Your task to perform on an android device: Go to calendar. Show me events next week Image 0: 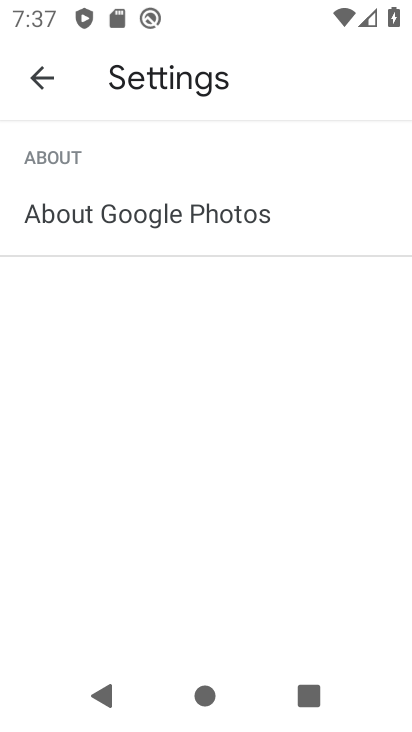
Step 0: press home button
Your task to perform on an android device: Go to calendar. Show me events next week Image 1: 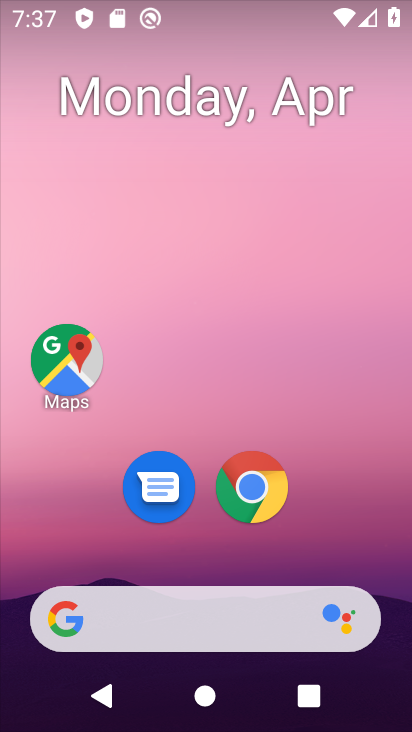
Step 1: drag from (349, 520) to (350, 99)
Your task to perform on an android device: Go to calendar. Show me events next week Image 2: 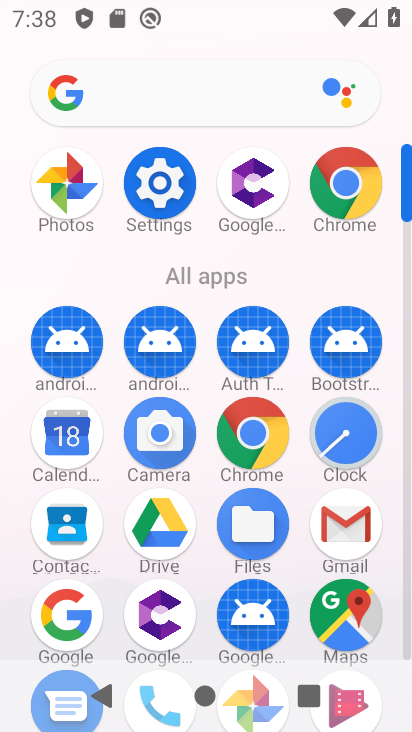
Step 2: drag from (391, 239) to (397, 91)
Your task to perform on an android device: Go to calendar. Show me events next week Image 3: 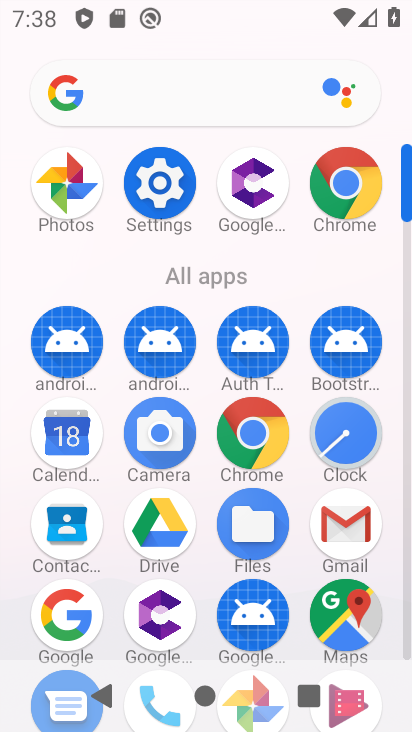
Step 3: drag from (392, 502) to (387, 228)
Your task to perform on an android device: Go to calendar. Show me events next week Image 4: 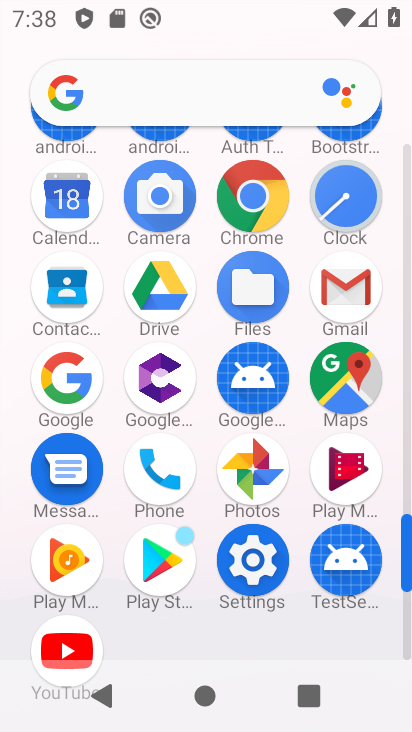
Step 4: click (65, 210)
Your task to perform on an android device: Go to calendar. Show me events next week Image 5: 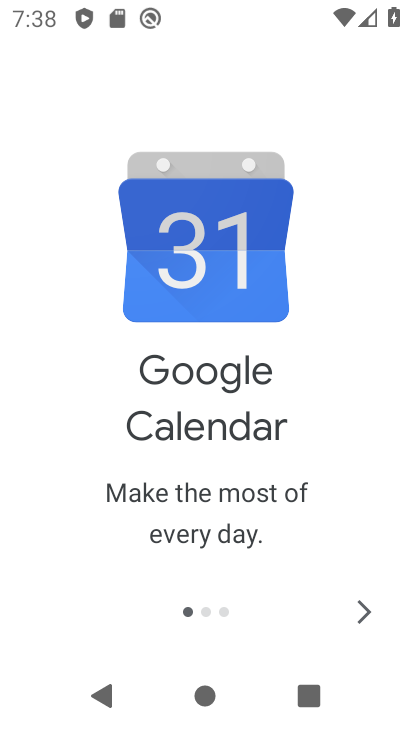
Step 5: click (360, 615)
Your task to perform on an android device: Go to calendar. Show me events next week Image 6: 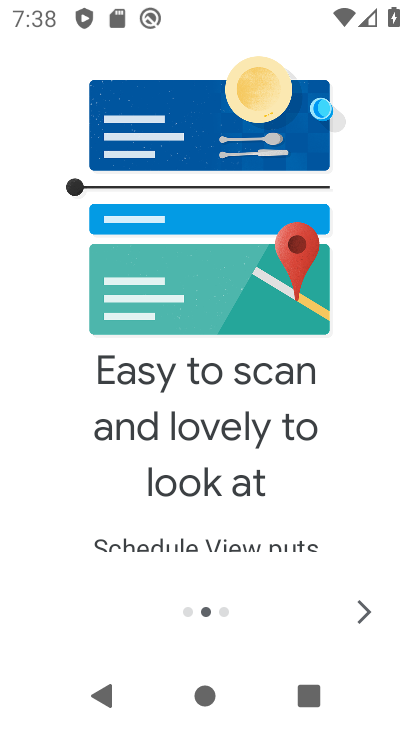
Step 6: click (360, 615)
Your task to perform on an android device: Go to calendar. Show me events next week Image 7: 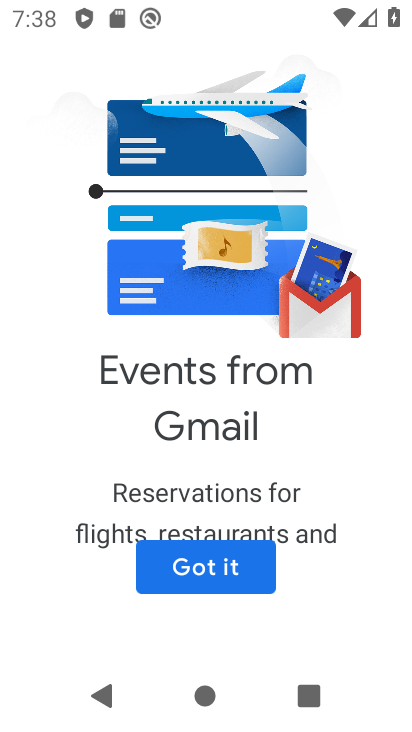
Step 7: click (219, 569)
Your task to perform on an android device: Go to calendar. Show me events next week Image 8: 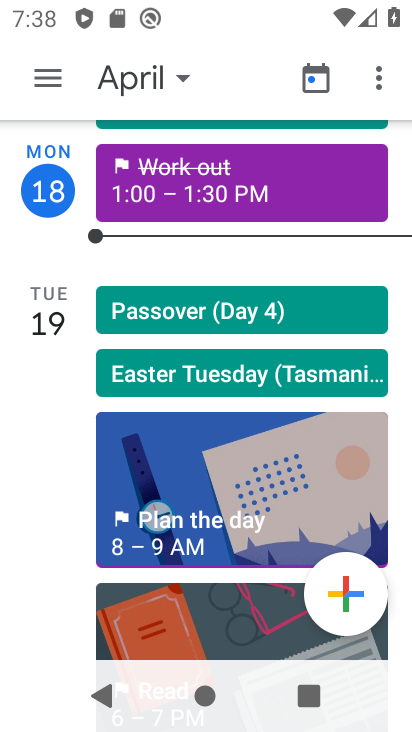
Step 8: click (182, 77)
Your task to perform on an android device: Go to calendar. Show me events next week Image 9: 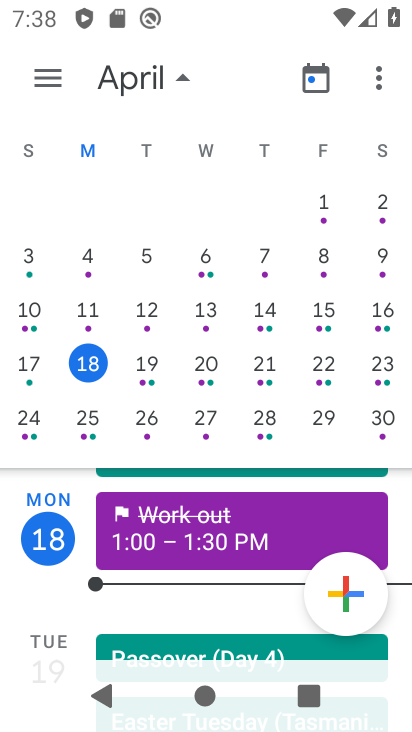
Step 9: click (149, 419)
Your task to perform on an android device: Go to calendar. Show me events next week Image 10: 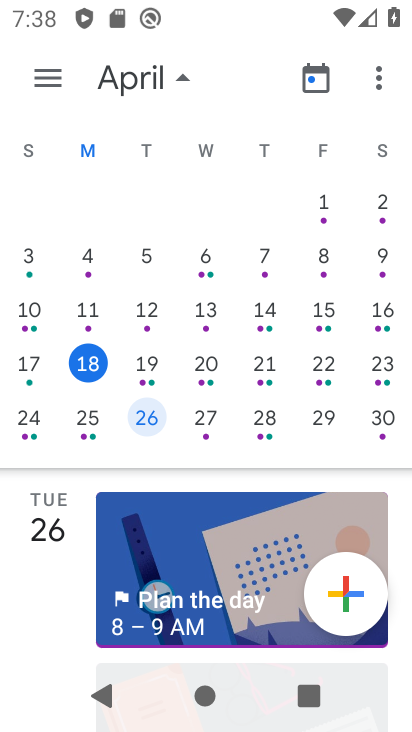
Step 10: click (191, 578)
Your task to perform on an android device: Go to calendar. Show me events next week Image 11: 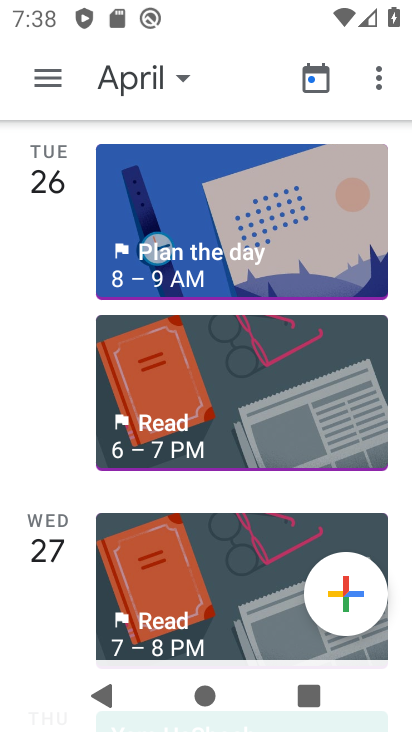
Step 11: task complete